Your task to perform on an android device: change the clock display to analog Image 0: 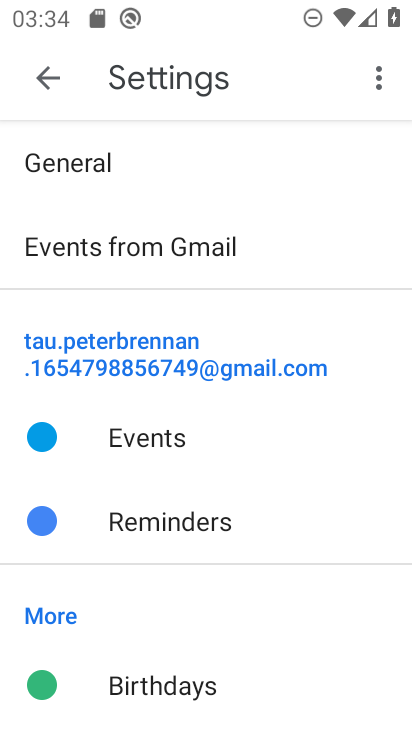
Step 0: press back button
Your task to perform on an android device: change the clock display to analog Image 1: 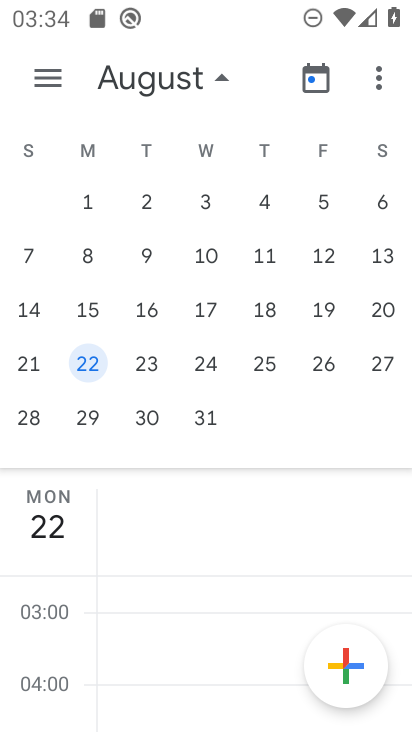
Step 1: press back button
Your task to perform on an android device: change the clock display to analog Image 2: 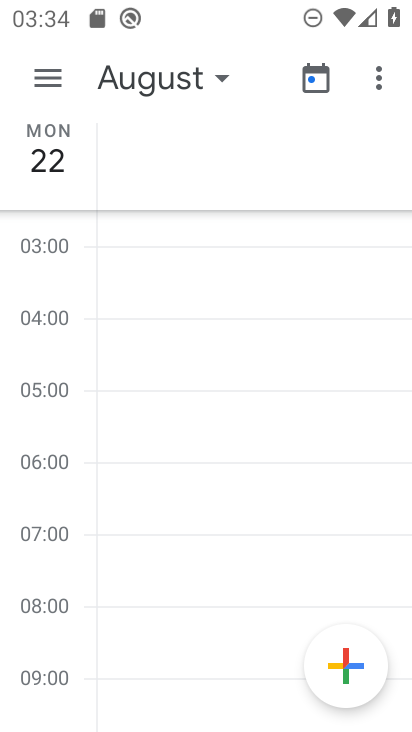
Step 2: press back button
Your task to perform on an android device: change the clock display to analog Image 3: 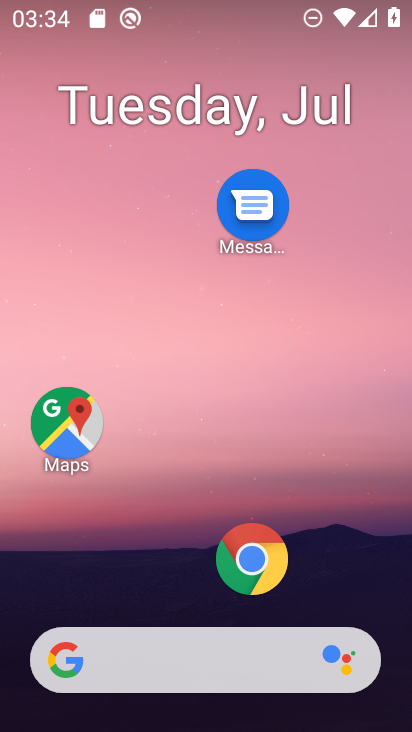
Step 3: drag from (143, 633) to (216, 64)
Your task to perform on an android device: change the clock display to analog Image 4: 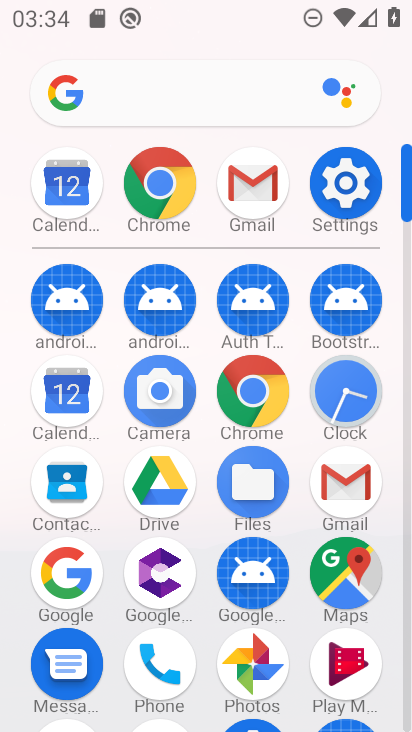
Step 4: click (350, 395)
Your task to perform on an android device: change the clock display to analog Image 5: 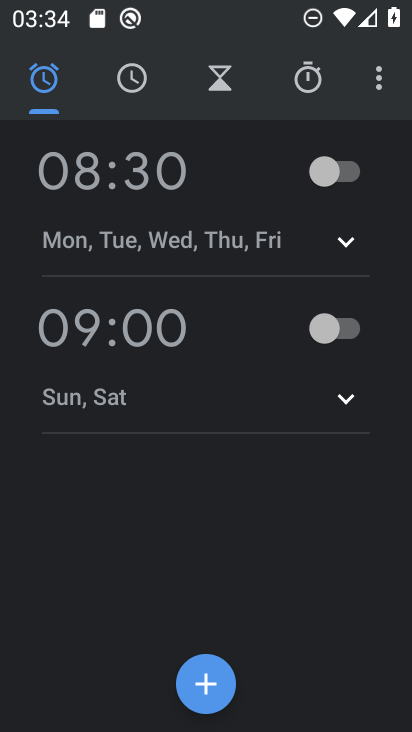
Step 5: click (374, 76)
Your task to perform on an android device: change the clock display to analog Image 6: 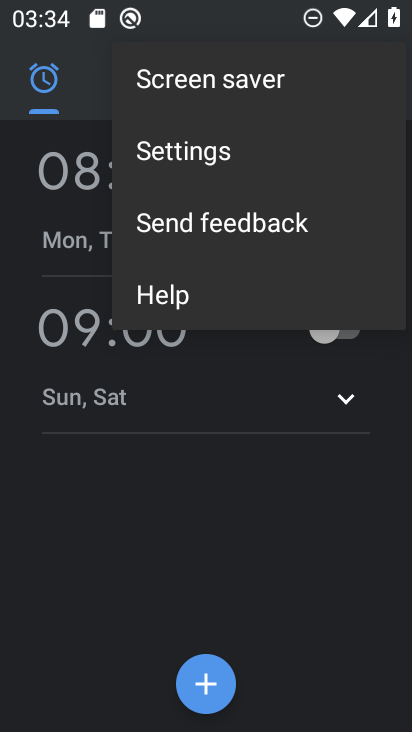
Step 6: click (174, 149)
Your task to perform on an android device: change the clock display to analog Image 7: 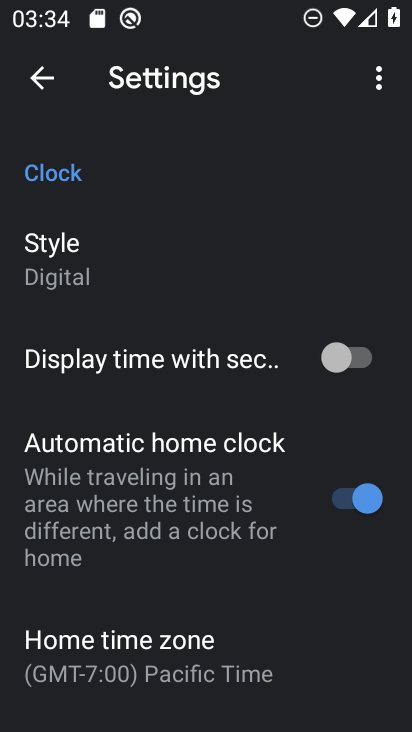
Step 7: click (110, 254)
Your task to perform on an android device: change the clock display to analog Image 8: 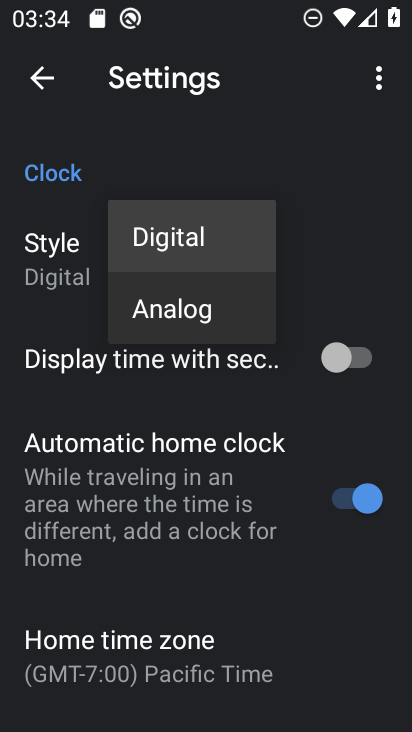
Step 8: click (137, 305)
Your task to perform on an android device: change the clock display to analog Image 9: 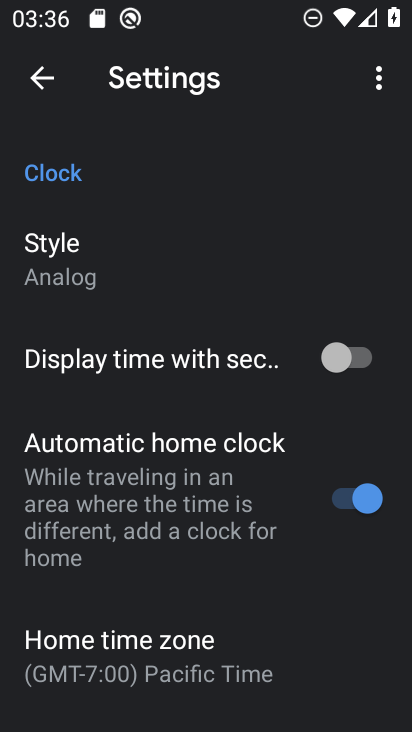
Step 9: task complete